Your task to perform on an android device: turn smart compose on in the gmail app Image 0: 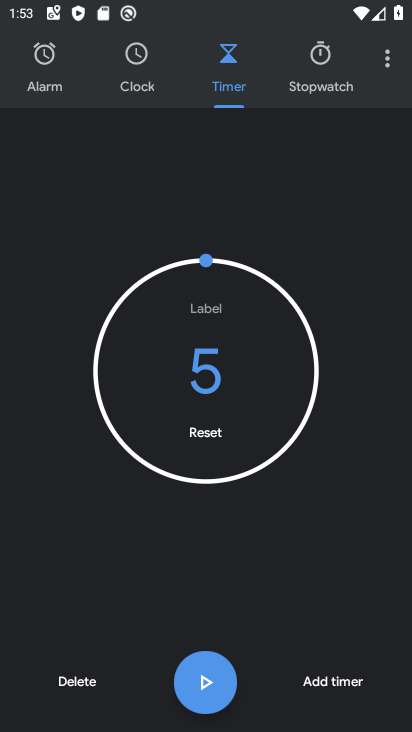
Step 0: press home button
Your task to perform on an android device: turn smart compose on in the gmail app Image 1: 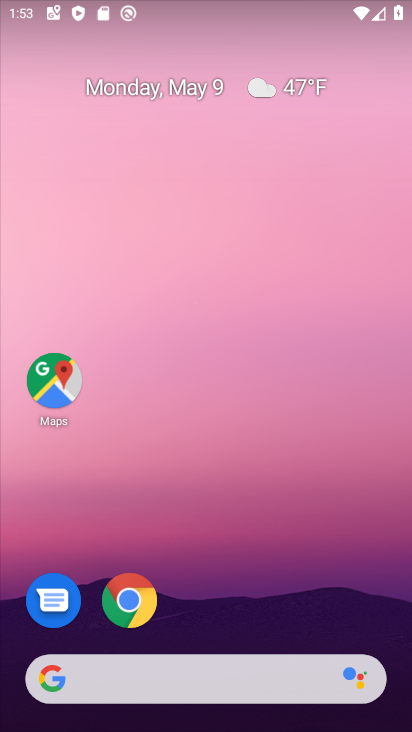
Step 1: drag from (228, 612) to (270, 180)
Your task to perform on an android device: turn smart compose on in the gmail app Image 2: 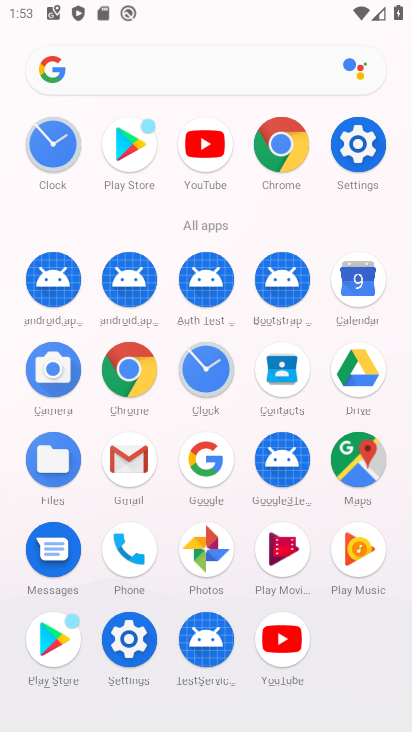
Step 2: click (126, 453)
Your task to perform on an android device: turn smart compose on in the gmail app Image 3: 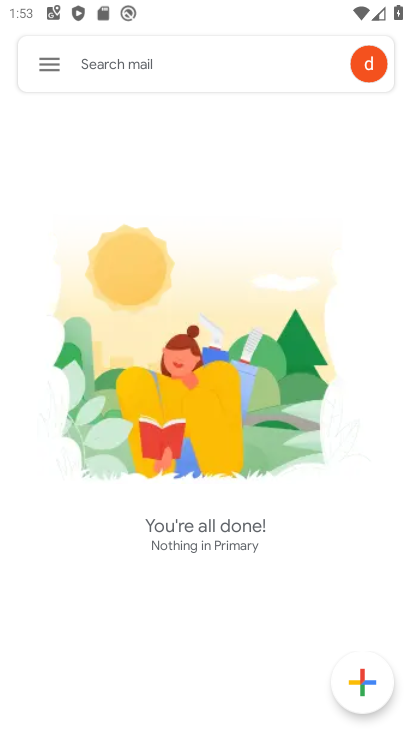
Step 3: click (35, 71)
Your task to perform on an android device: turn smart compose on in the gmail app Image 4: 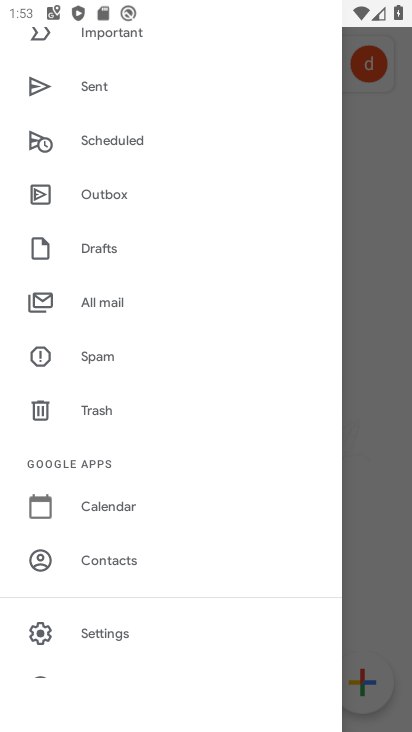
Step 4: click (100, 626)
Your task to perform on an android device: turn smart compose on in the gmail app Image 5: 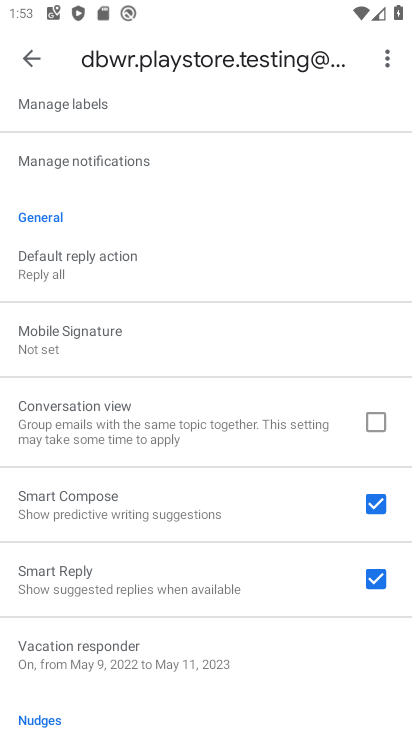
Step 5: task complete